Your task to perform on an android device: Add "dell xps" to the cart on ebay, then select checkout. Image 0: 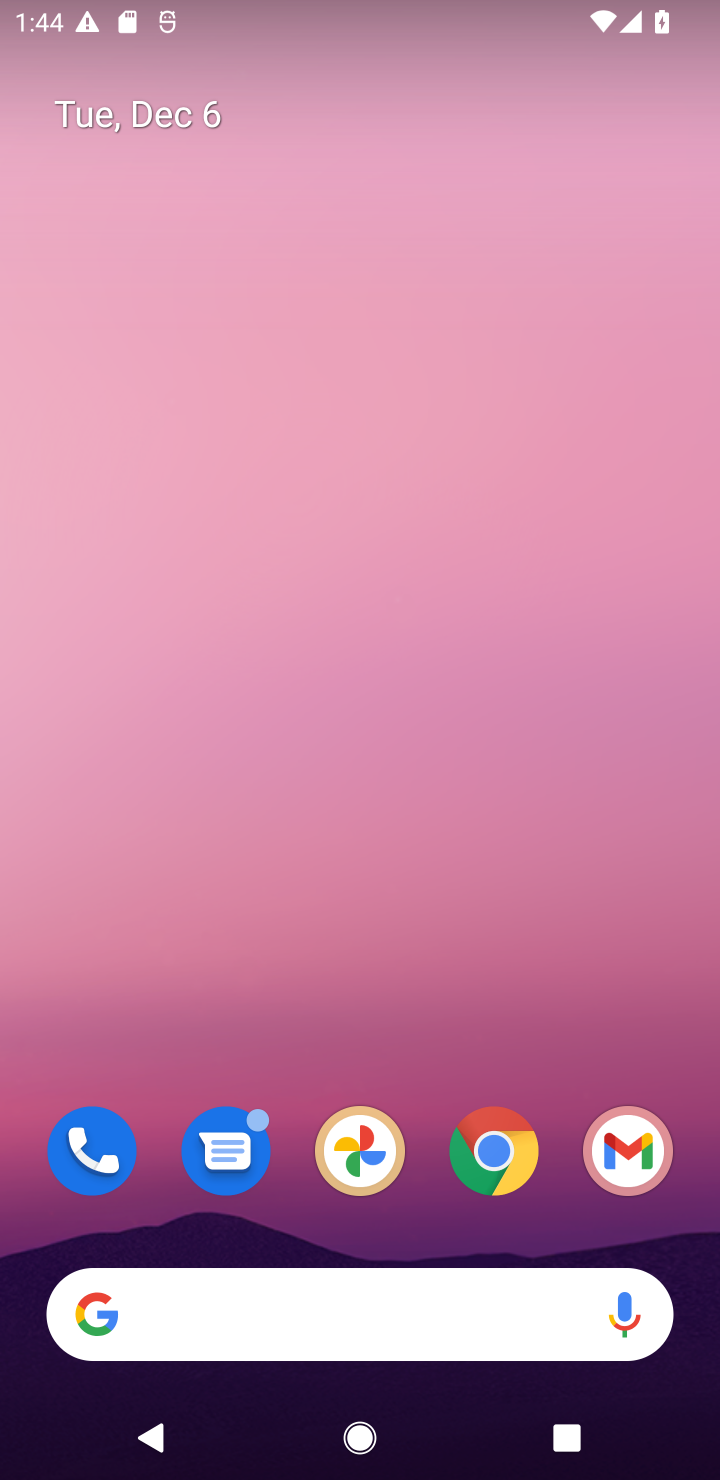
Step 0: click (500, 1168)
Your task to perform on an android device: Add "dell xps" to the cart on ebay, then select checkout. Image 1: 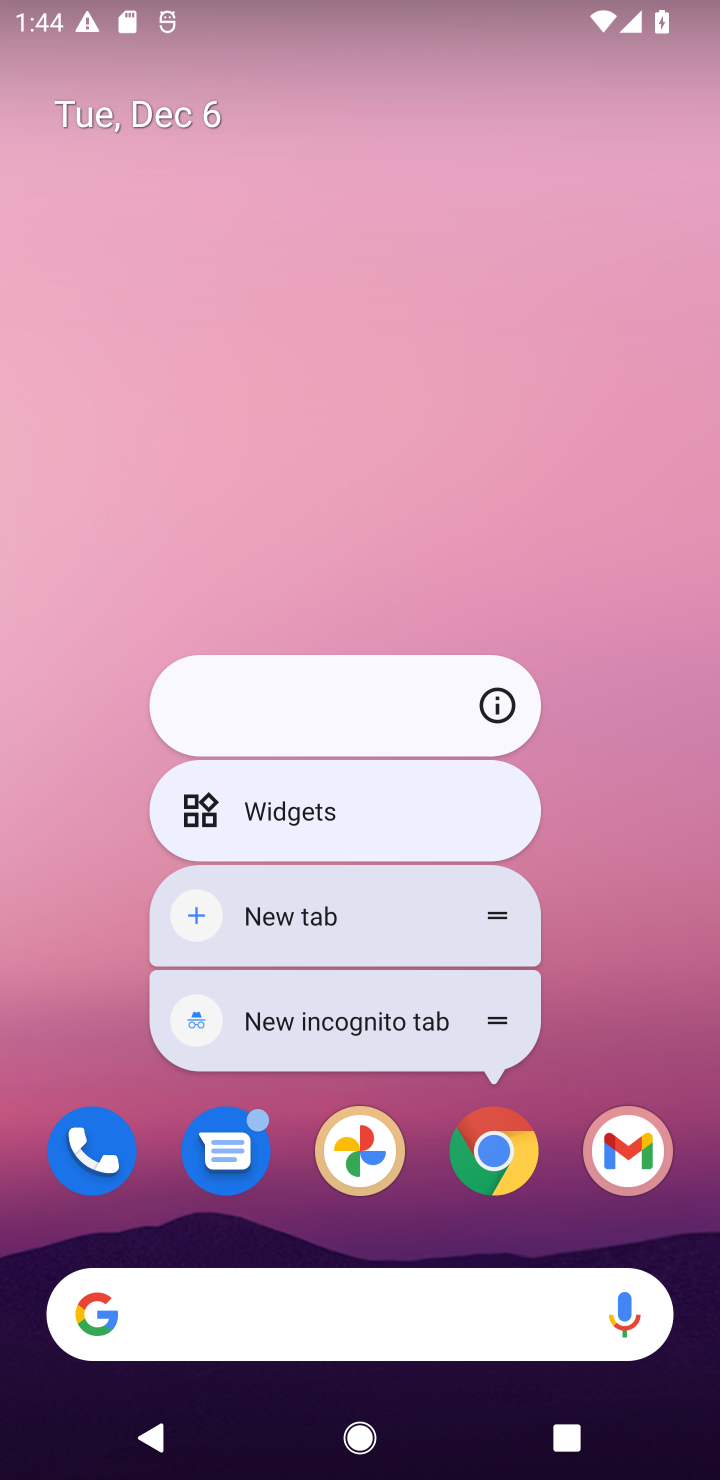
Step 1: click (605, 966)
Your task to perform on an android device: Add "dell xps" to the cart on ebay, then select checkout. Image 2: 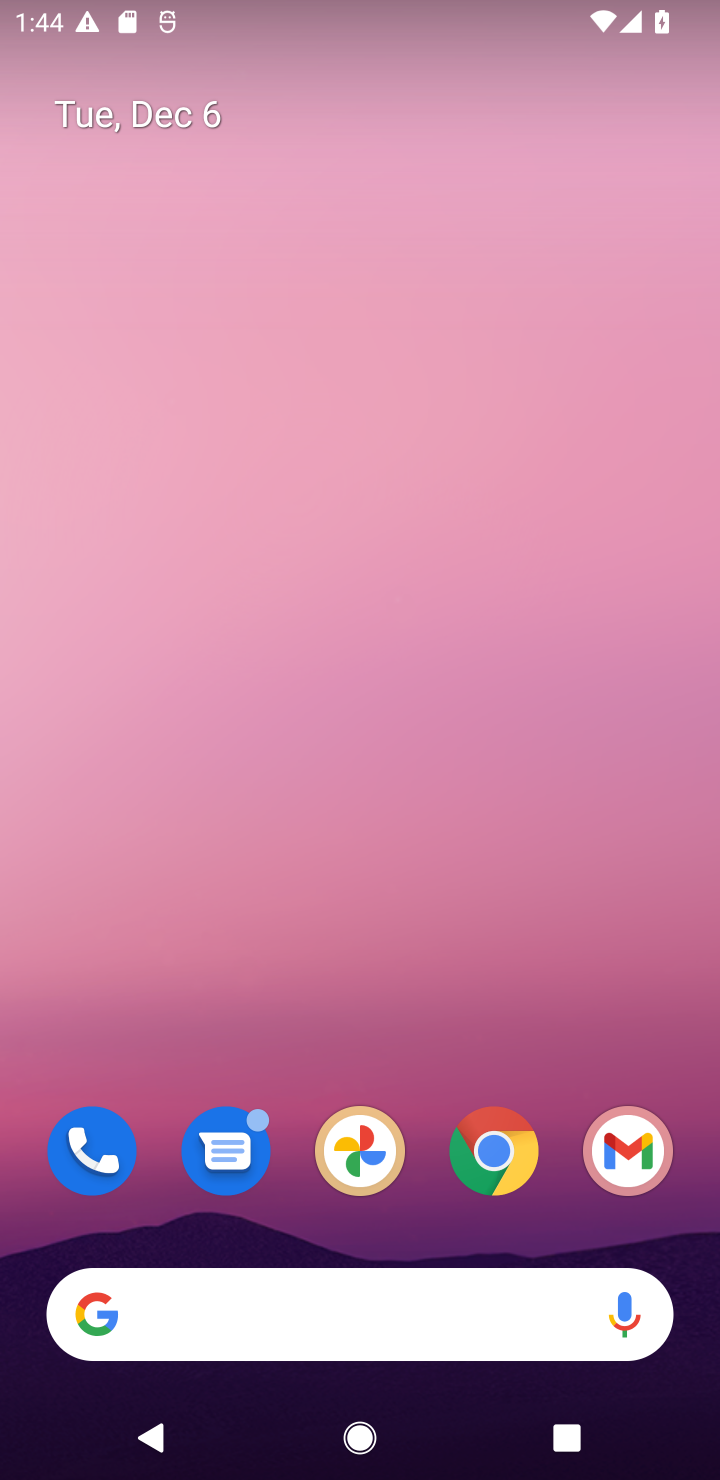
Step 2: click (502, 1148)
Your task to perform on an android device: Add "dell xps" to the cart on ebay, then select checkout. Image 3: 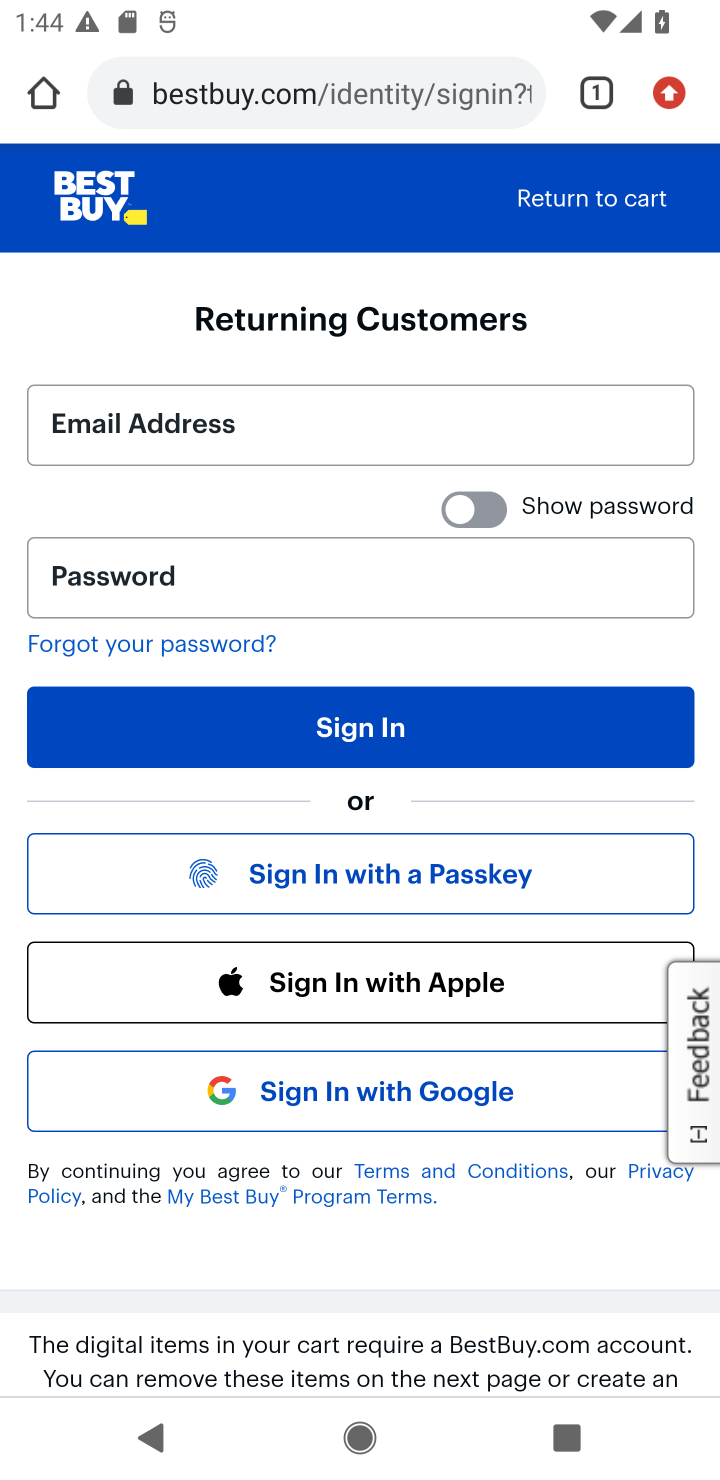
Step 3: click (292, 104)
Your task to perform on an android device: Add "dell xps" to the cart on ebay, then select checkout. Image 4: 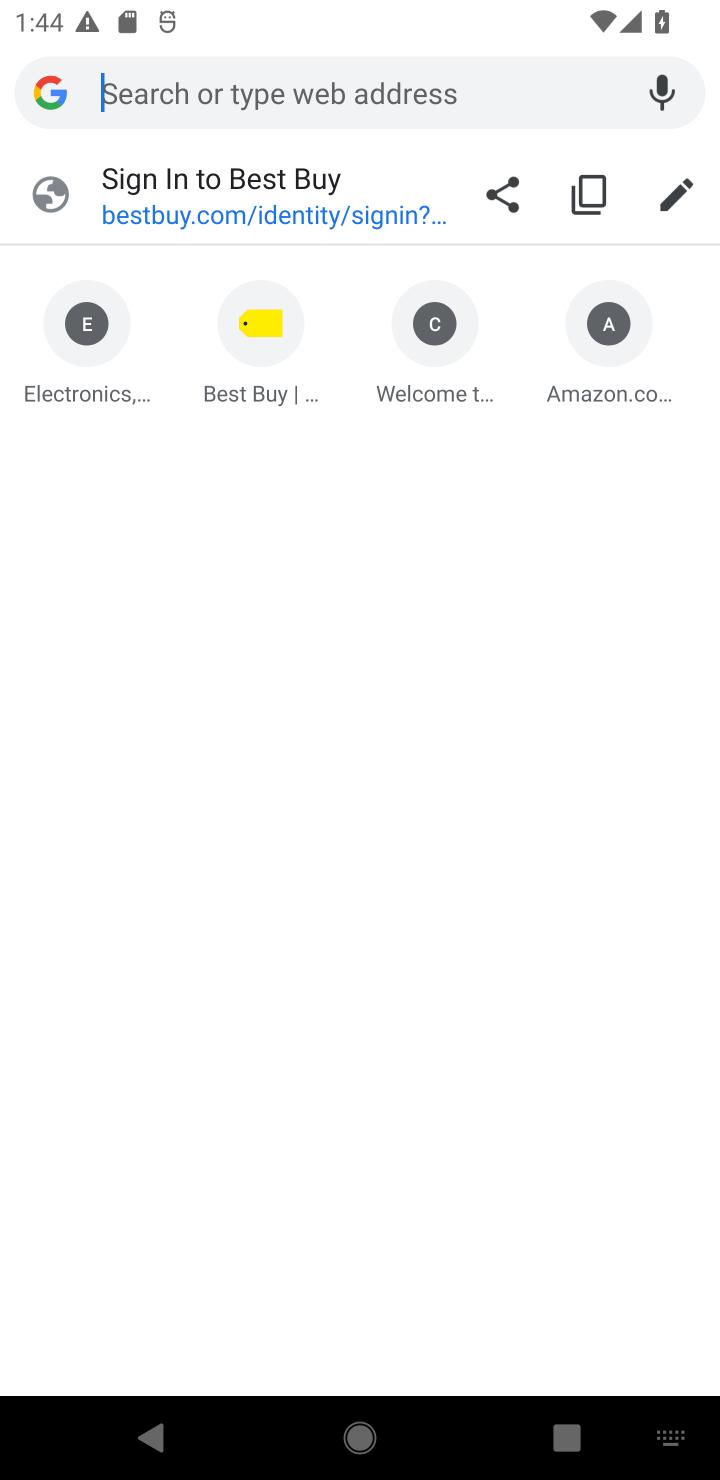
Step 4: type "ebay.com"
Your task to perform on an android device: Add "dell xps" to the cart on ebay, then select checkout. Image 5: 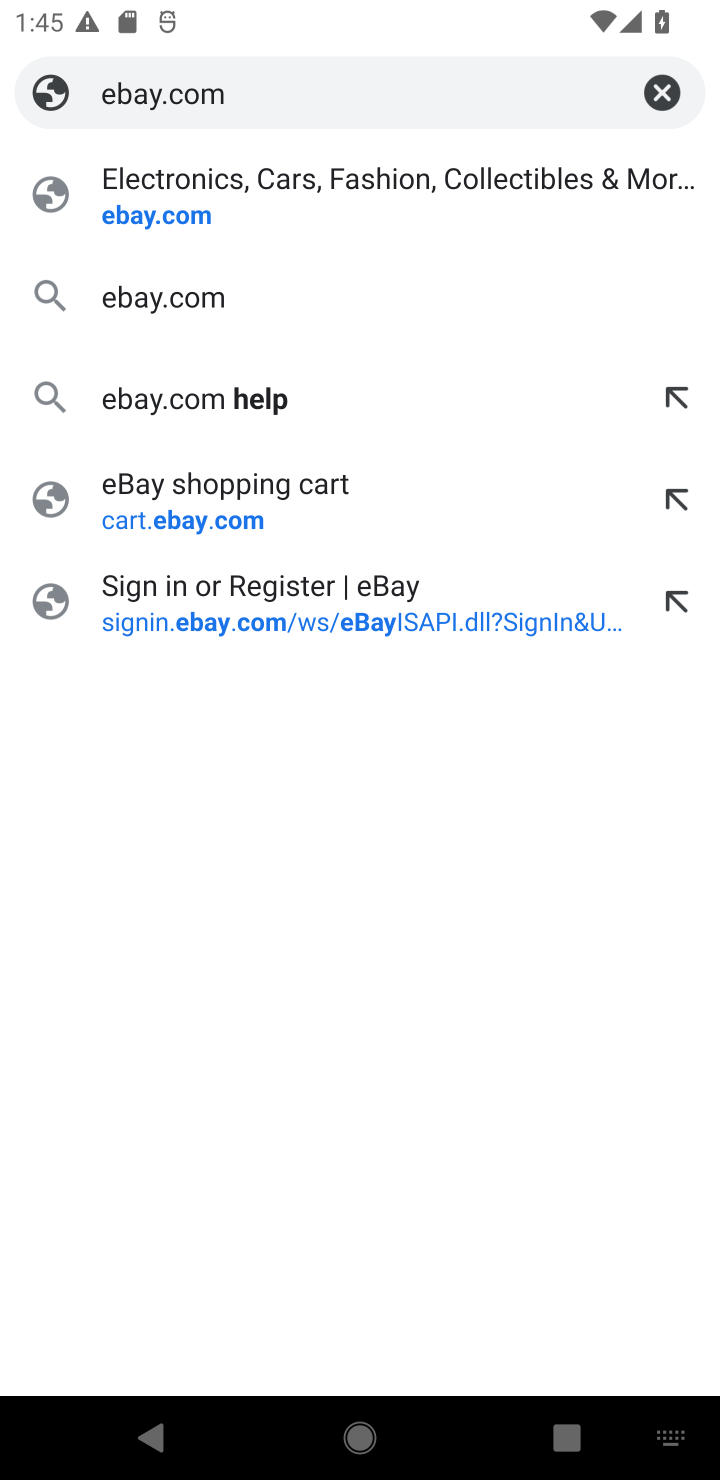
Step 5: click (116, 191)
Your task to perform on an android device: Add "dell xps" to the cart on ebay, then select checkout. Image 6: 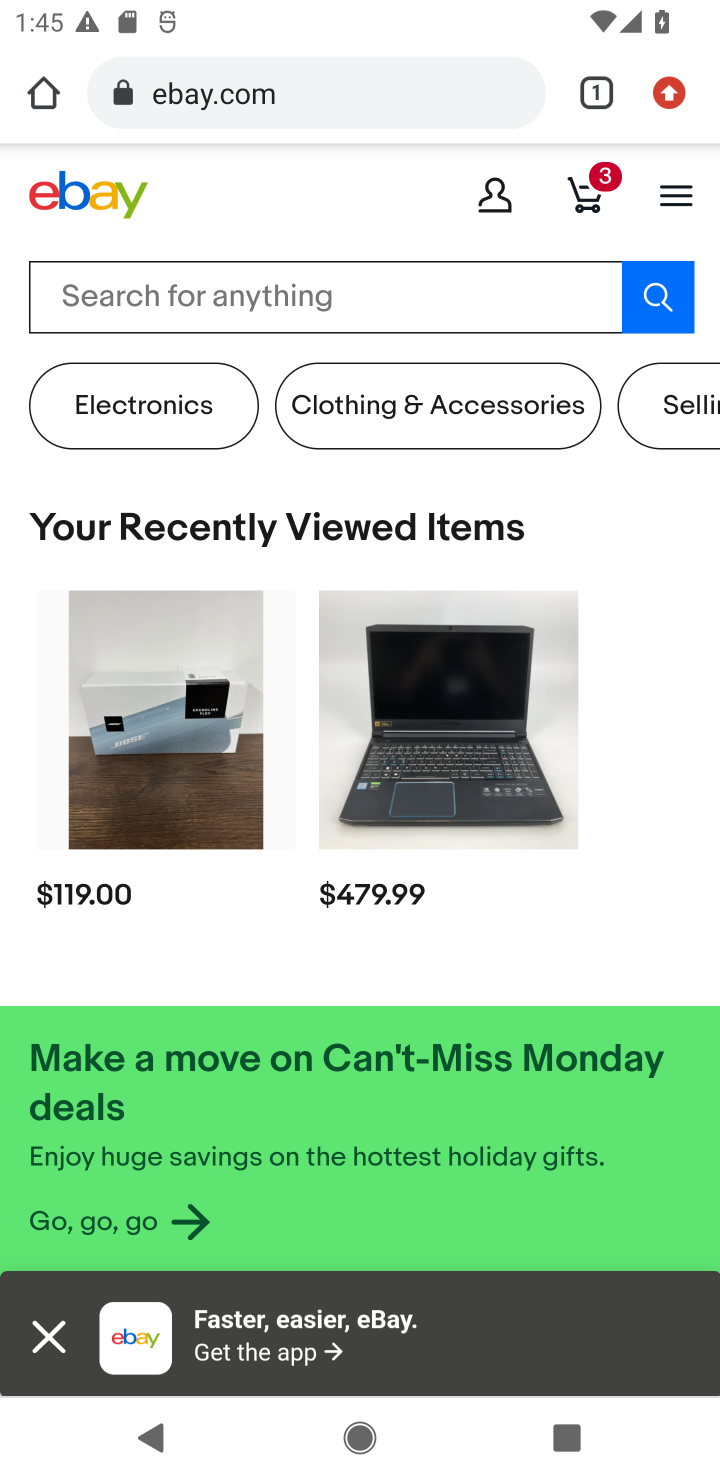
Step 6: click (145, 296)
Your task to perform on an android device: Add "dell xps" to the cart on ebay, then select checkout. Image 7: 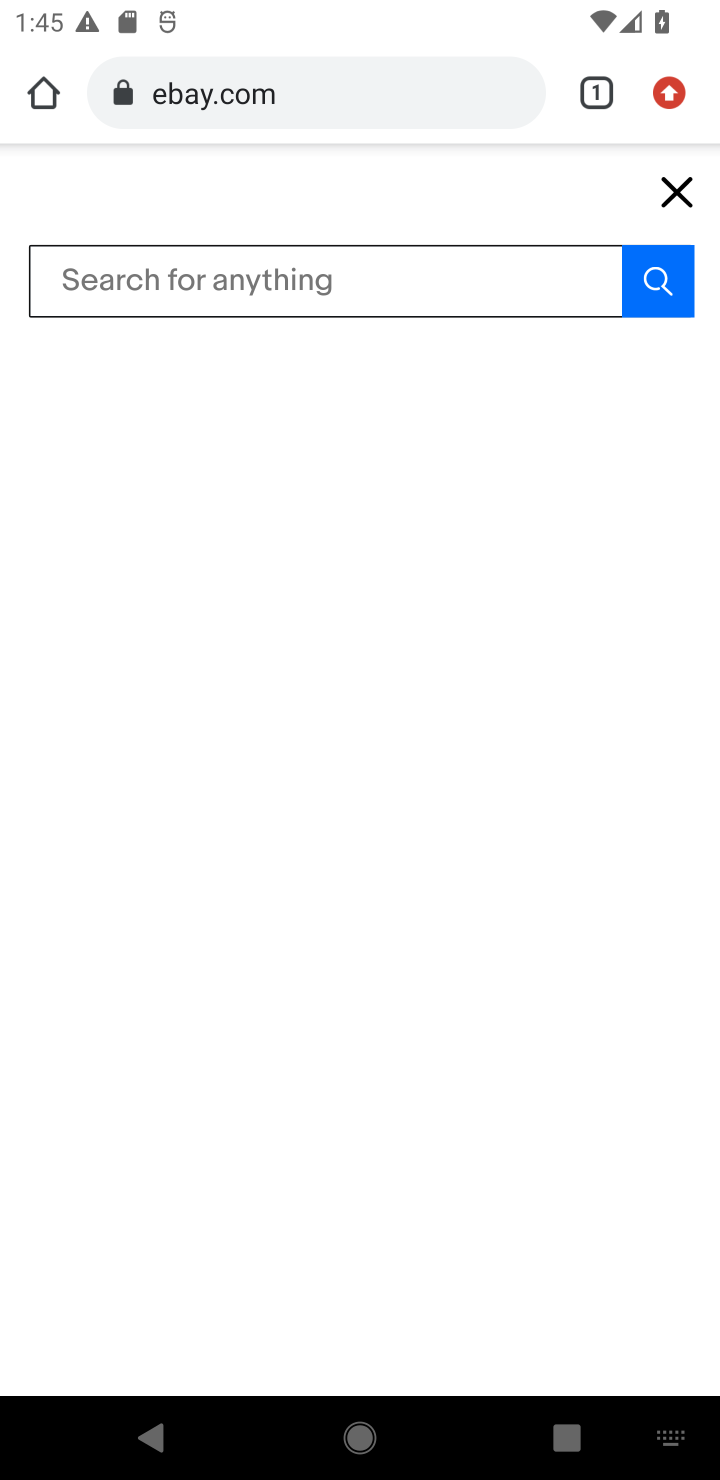
Step 7: type "dell xps"
Your task to perform on an android device: Add "dell xps" to the cart on ebay, then select checkout. Image 8: 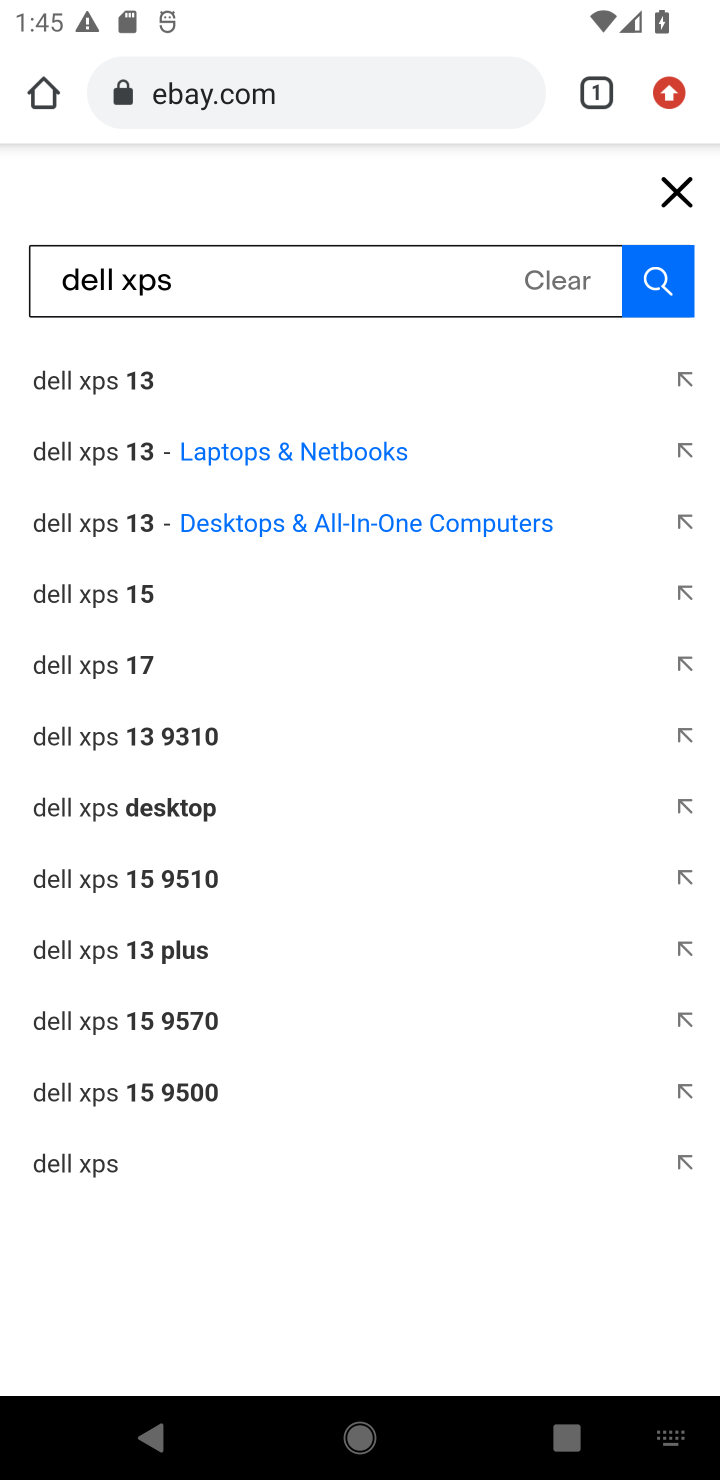
Step 8: click (77, 374)
Your task to perform on an android device: Add "dell xps" to the cart on ebay, then select checkout. Image 9: 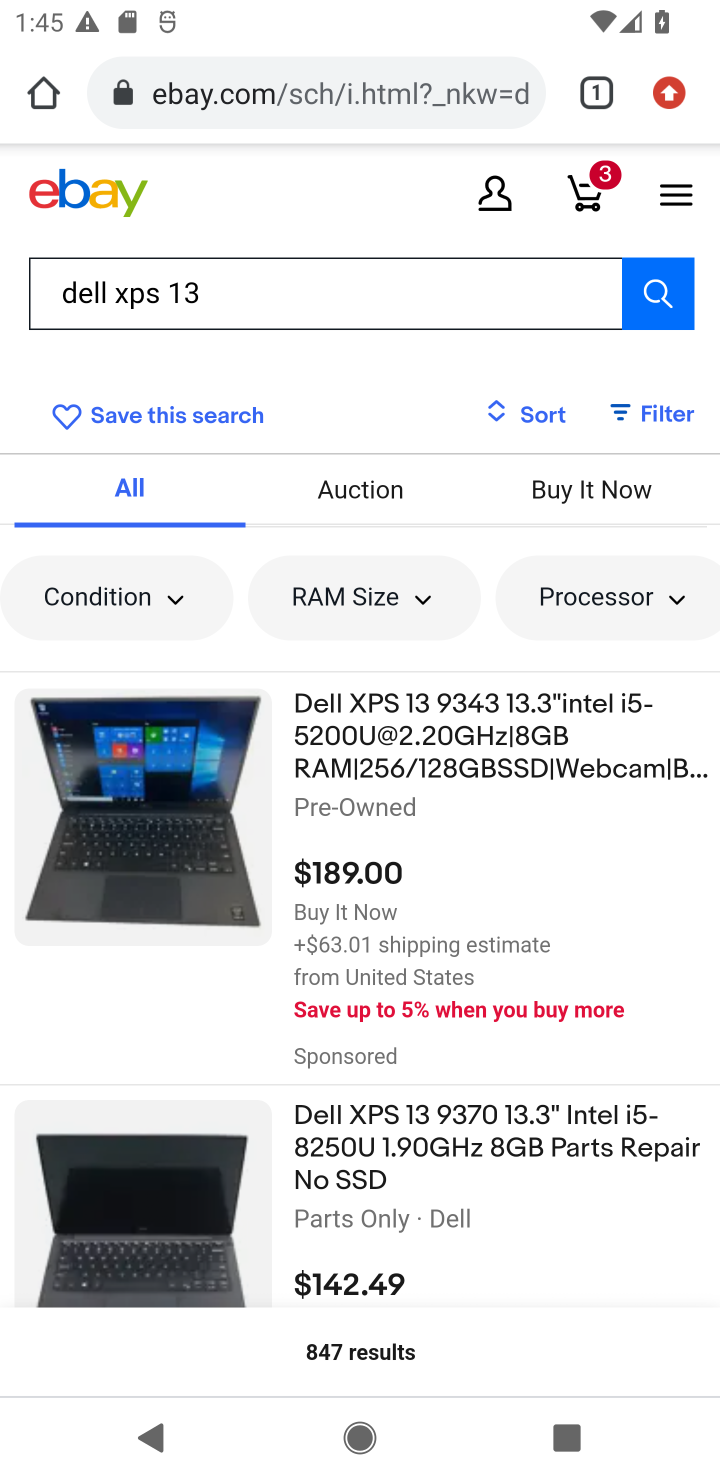
Step 9: click (351, 734)
Your task to perform on an android device: Add "dell xps" to the cart on ebay, then select checkout. Image 10: 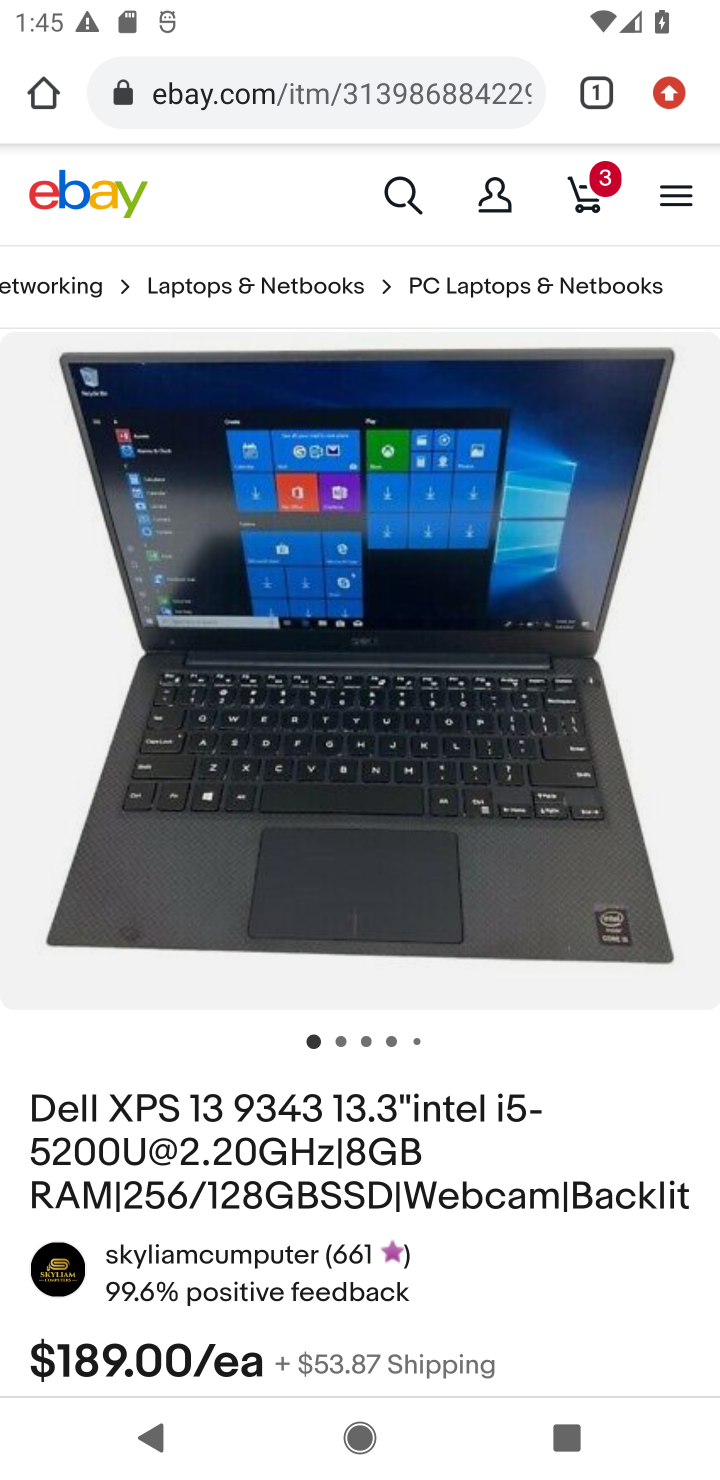
Step 10: drag from (702, 874) to (704, 466)
Your task to perform on an android device: Add "dell xps" to the cart on ebay, then select checkout. Image 11: 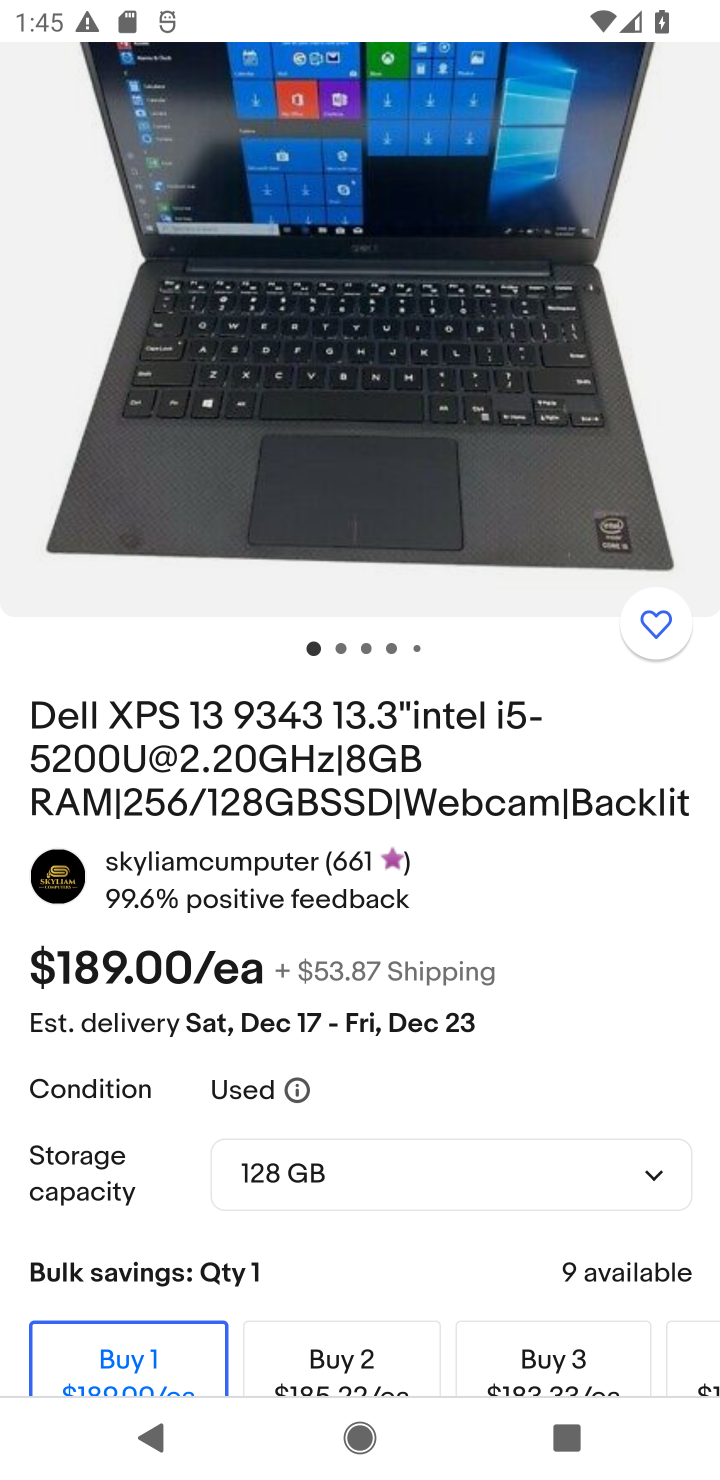
Step 11: drag from (668, 1043) to (686, 489)
Your task to perform on an android device: Add "dell xps" to the cart on ebay, then select checkout. Image 12: 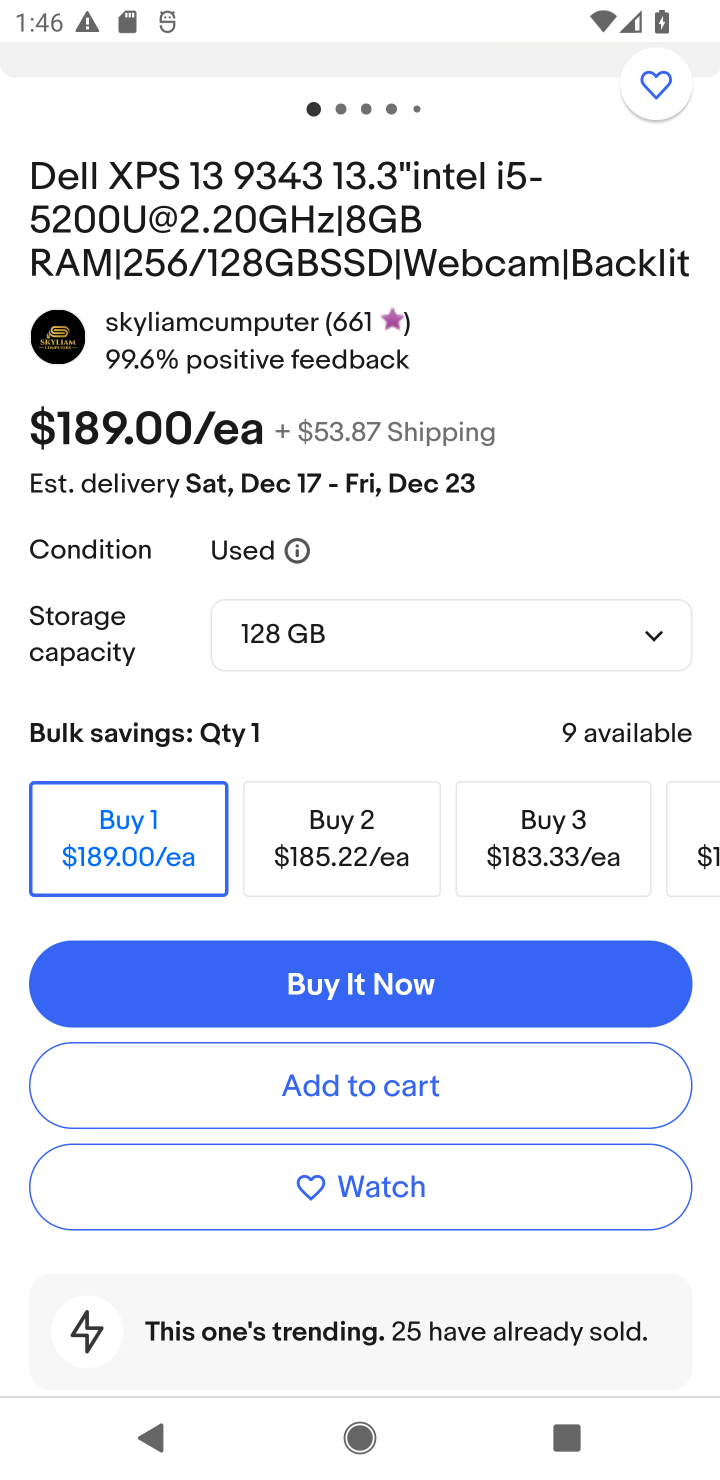
Step 12: click (424, 1090)
Your task to perform on an android device: Add "dell xps" to the cart on ebay, then select checkout. Image 13: 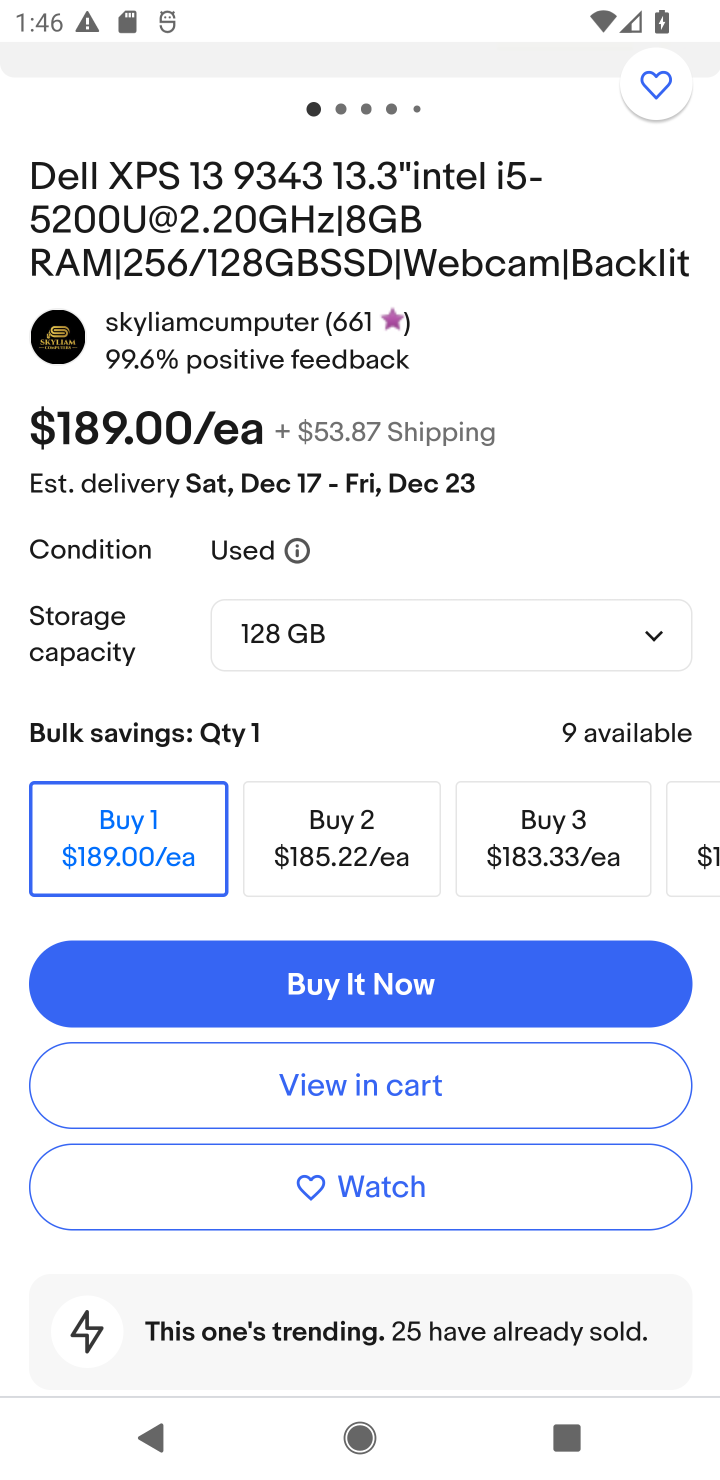
Step 13: click (424, 1090)
Your task to perform on an android device: Add "dell xps" to the cart on ebay, then select checkout. Image 14: 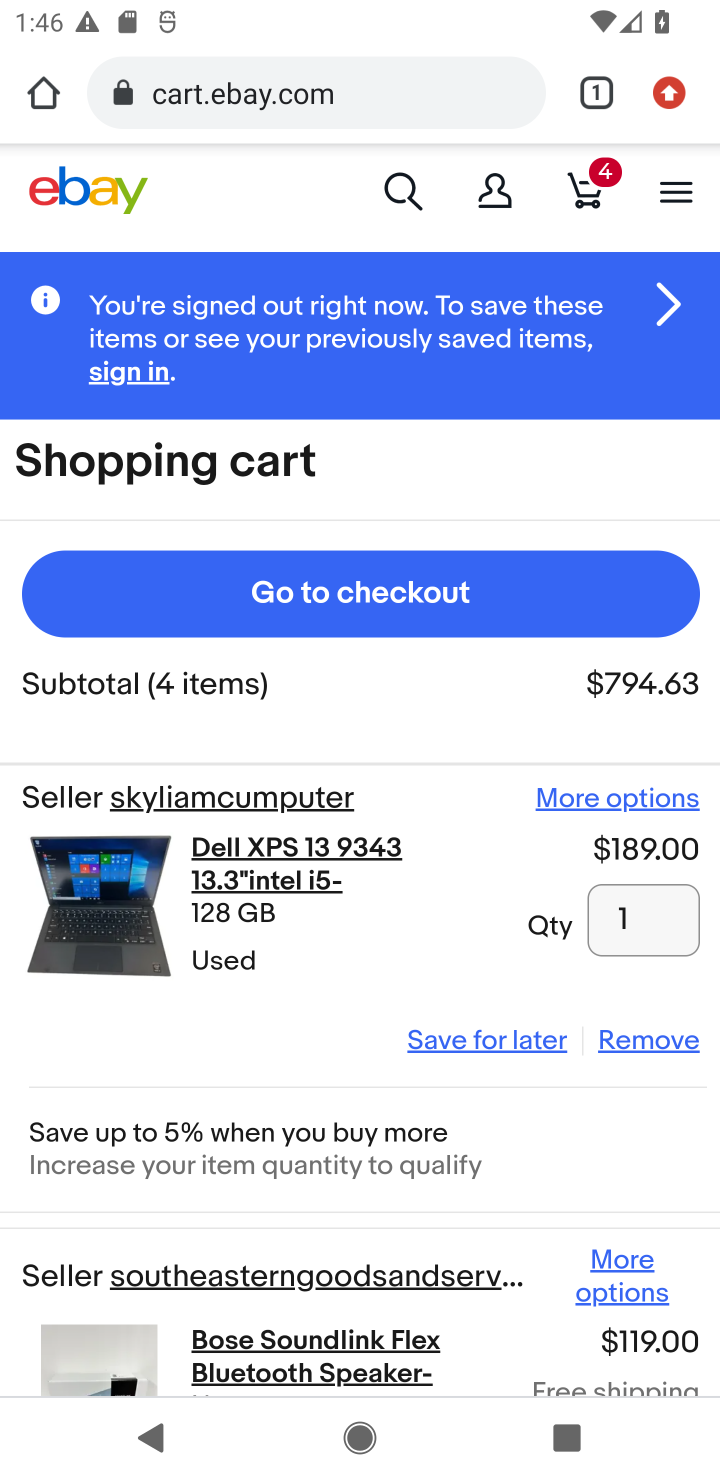
Step 14: click (363, 614)
Your task to perform on an android device: Add "dell xps" to the cart on ebay, then select checkout. Image 15: 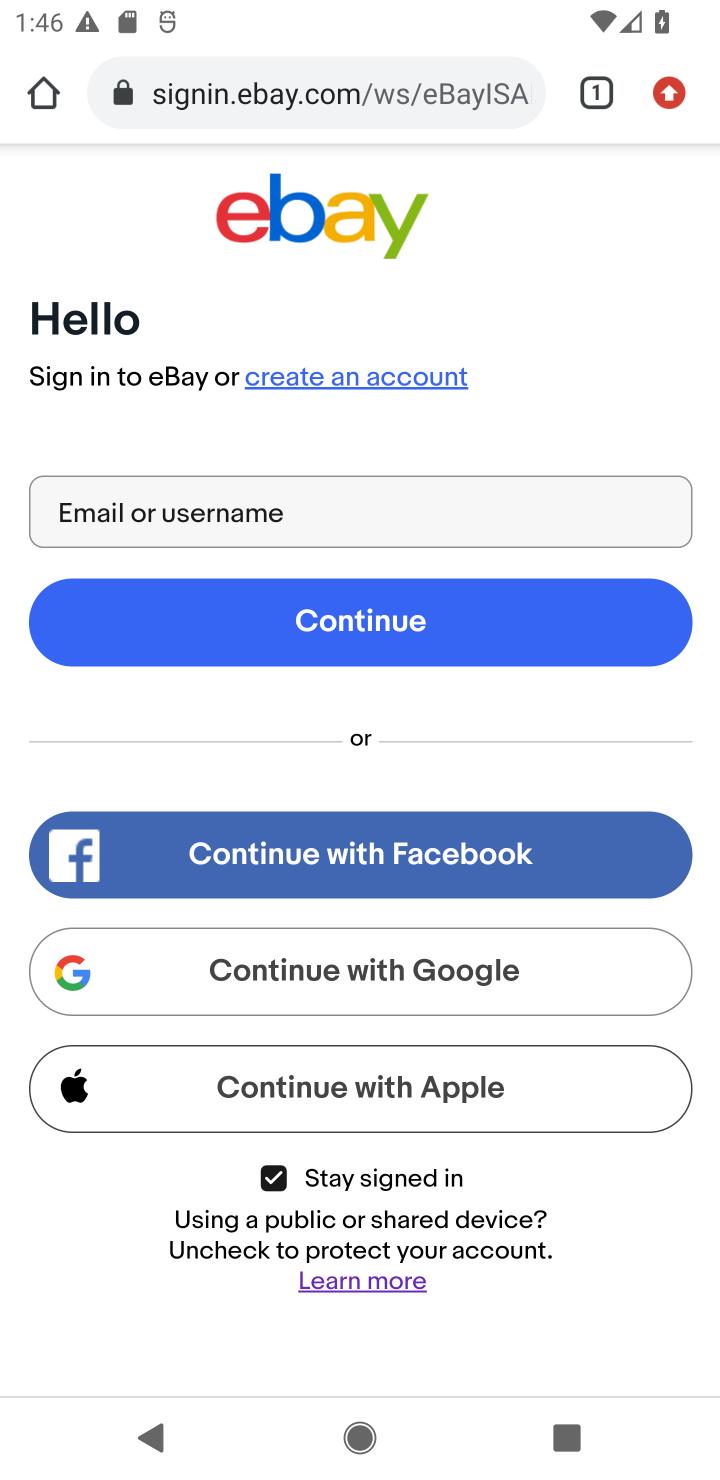
Step 15: task complete